Your task to perform on an android device: What is the recent news? Image 0: 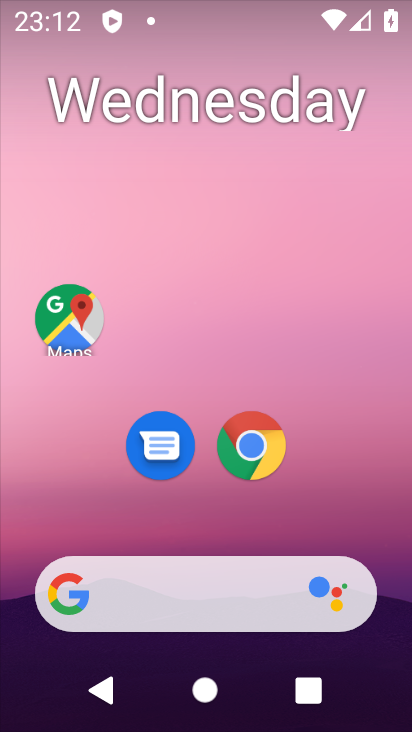
Step 0: drag from (211, 485) to (289, 11)
Your task to perform on an android device: What is the recent news? Image 1: 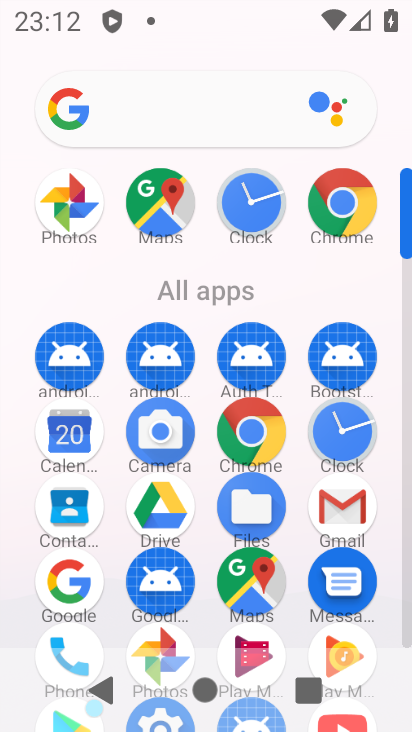
Step 1: press back button
Your task to perform on an android device: What is the recent news? Image 2: 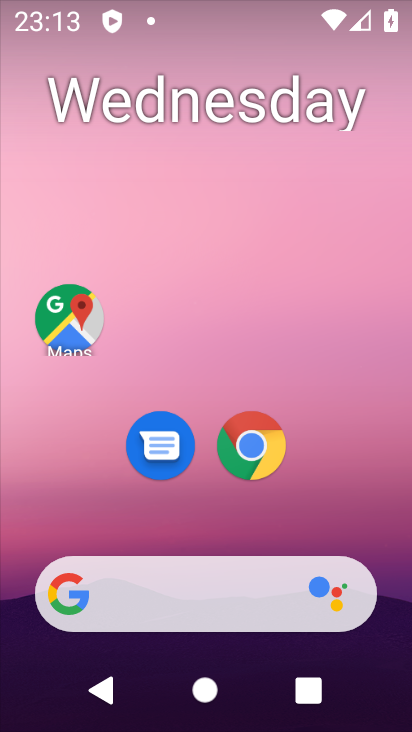
Step 2: click (200, 575)
Your task to perform on an android device: What is the recent news? Image 3: 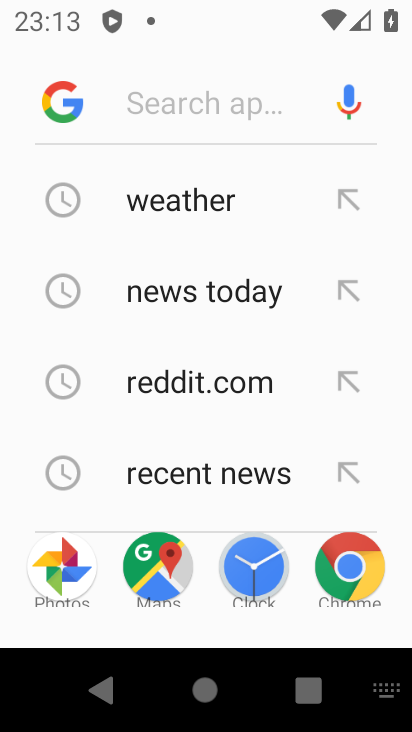
Step 3: click (152, 113)
Your task to perform on an android device: What is the recent news? Image 4: 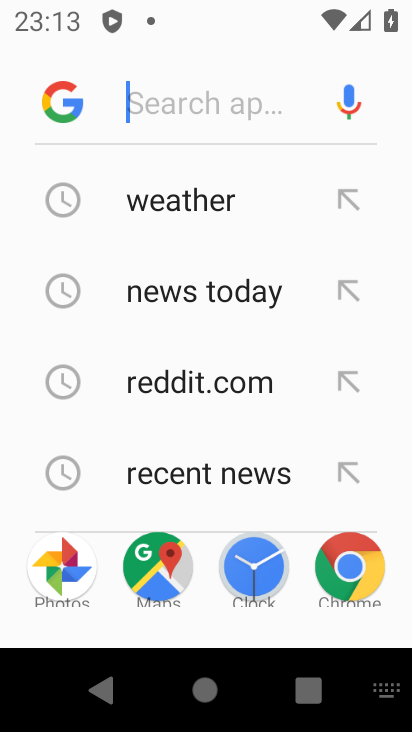
Step 4: click (174, 488)
Your task to perform on an android device: What is the recent news? Image 5: 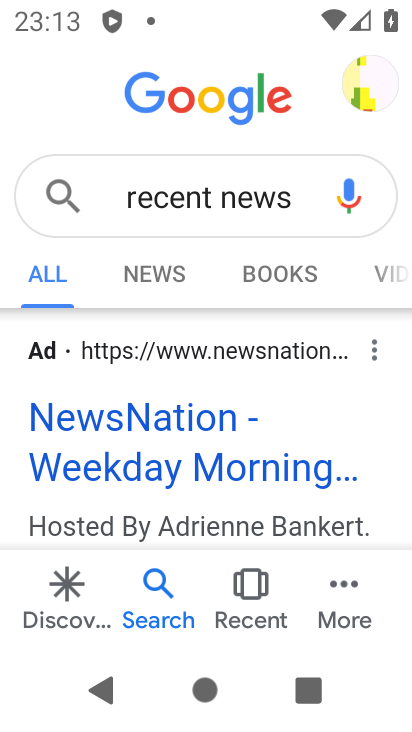
Step 5: task complete